Your task to perform on an android device: Add jbl charge 4 to the cart on newegg.com Image 0: 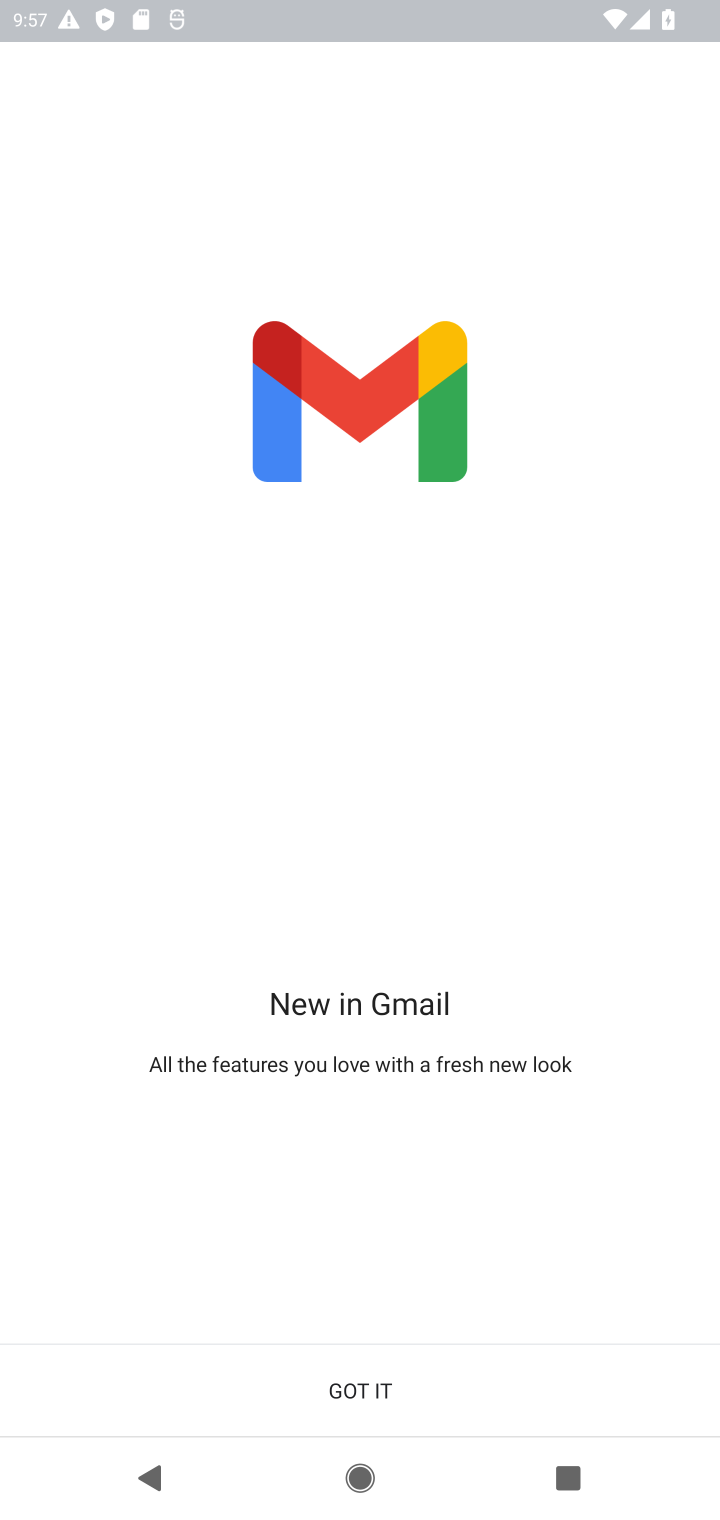
Step 0: press home button
Your task to perform on an android device: Add jbl charge 4 to the cart on newegg.com Image 1: 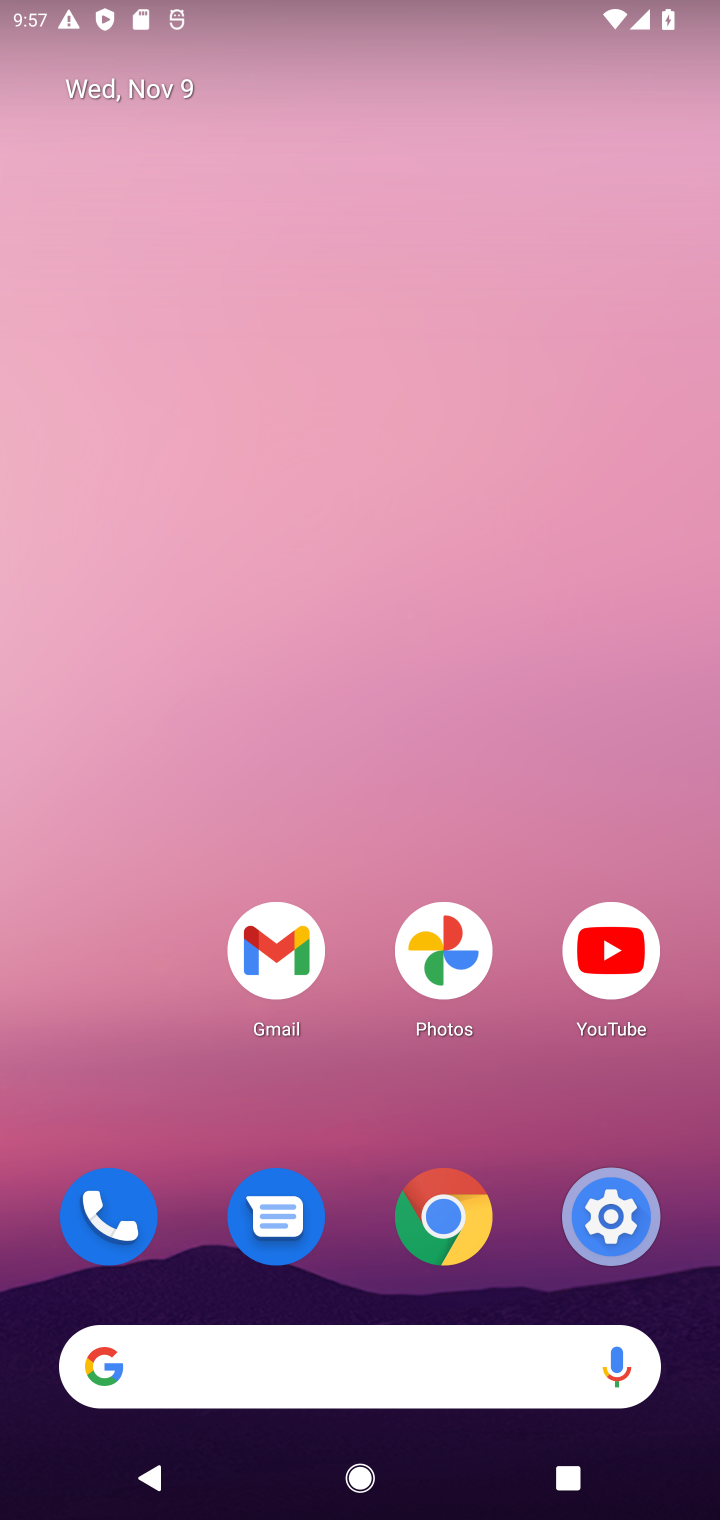
Step 1: drag from (318, 705) to (323, 279)
Your task to perform on an android device: Add jbl charge 4 to the cart on newegg.com Image 2: 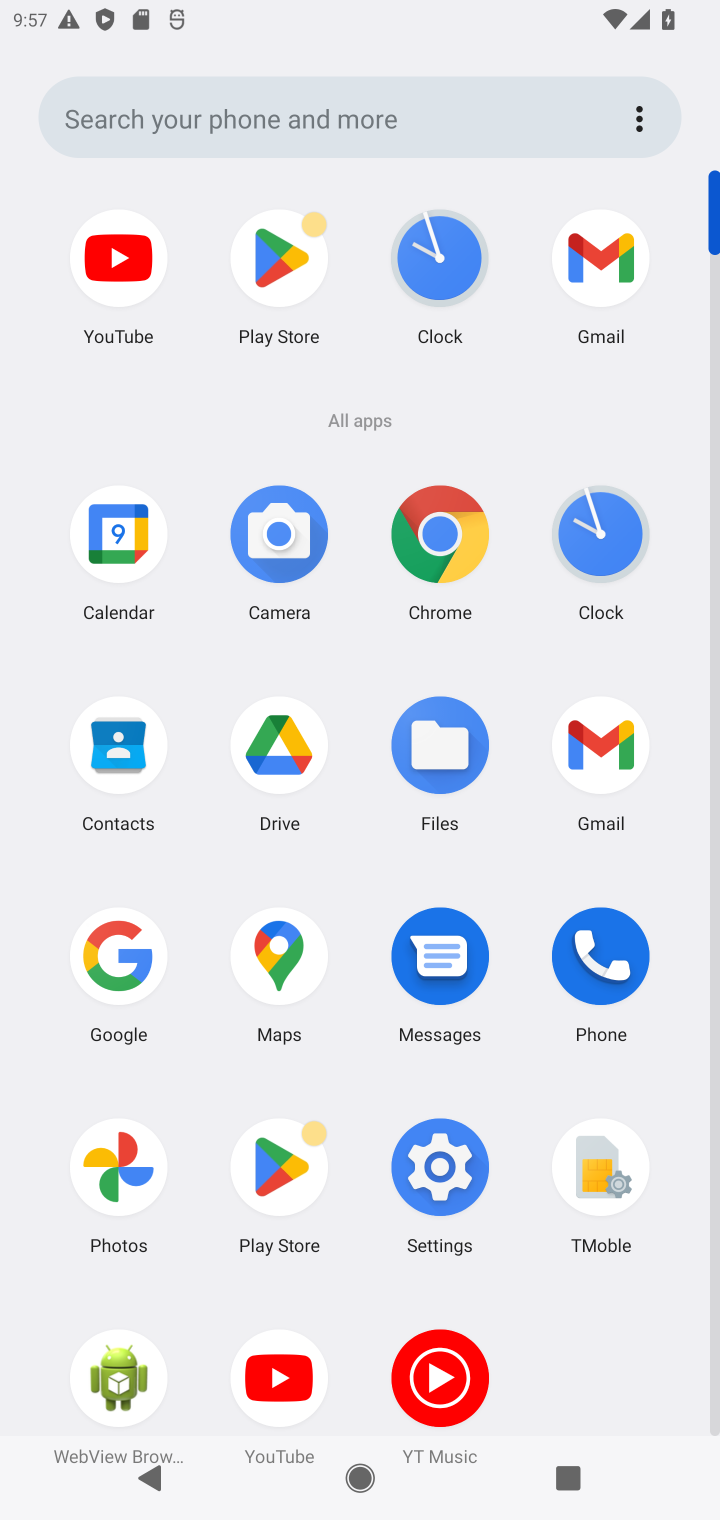
Step 2: click (438, 539)
Your task to perform on an android device: Add jbl charge 4 to the cart on newegg.com Image 3: 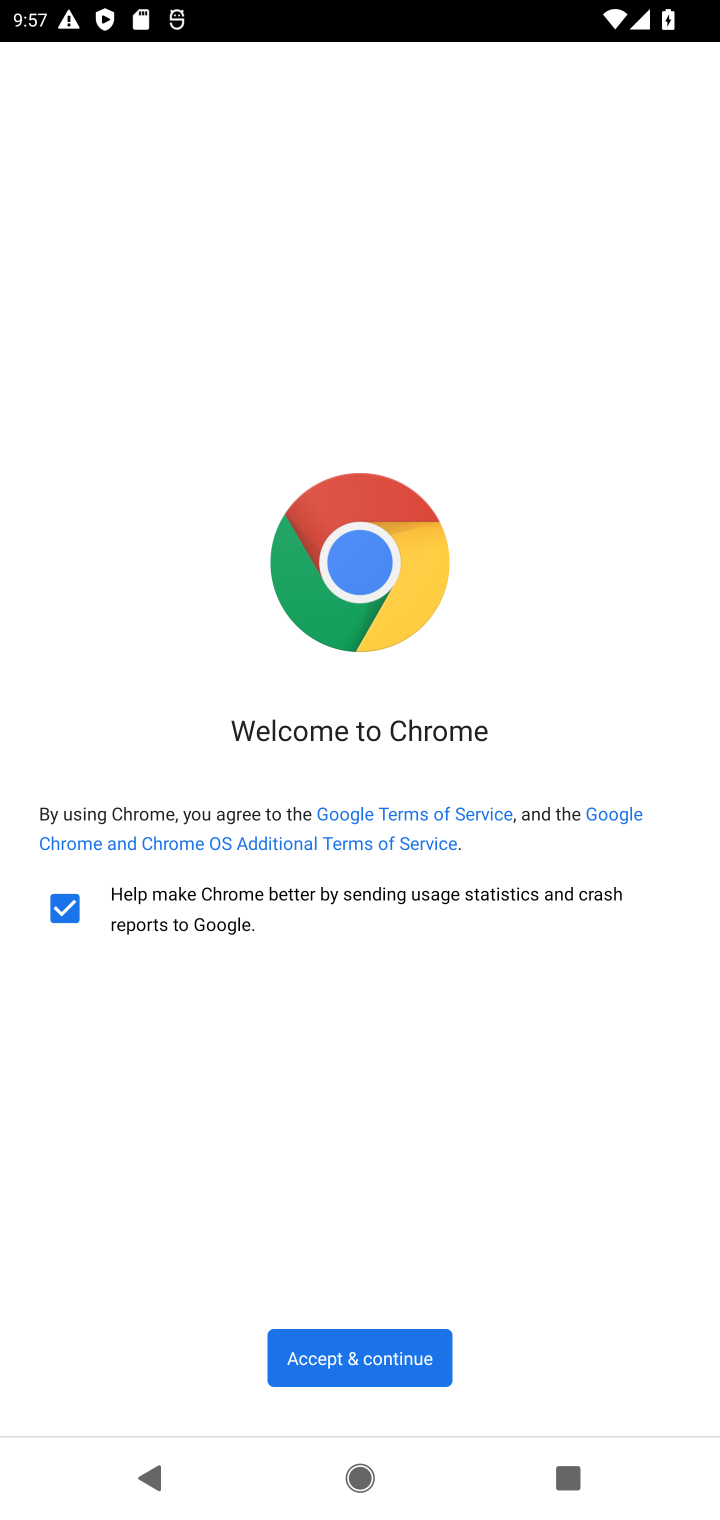
Step 3: click (410, 1342)
Your task to perform on an android device: Add jbl charge 4 to the cart on newegg.com Image 4: 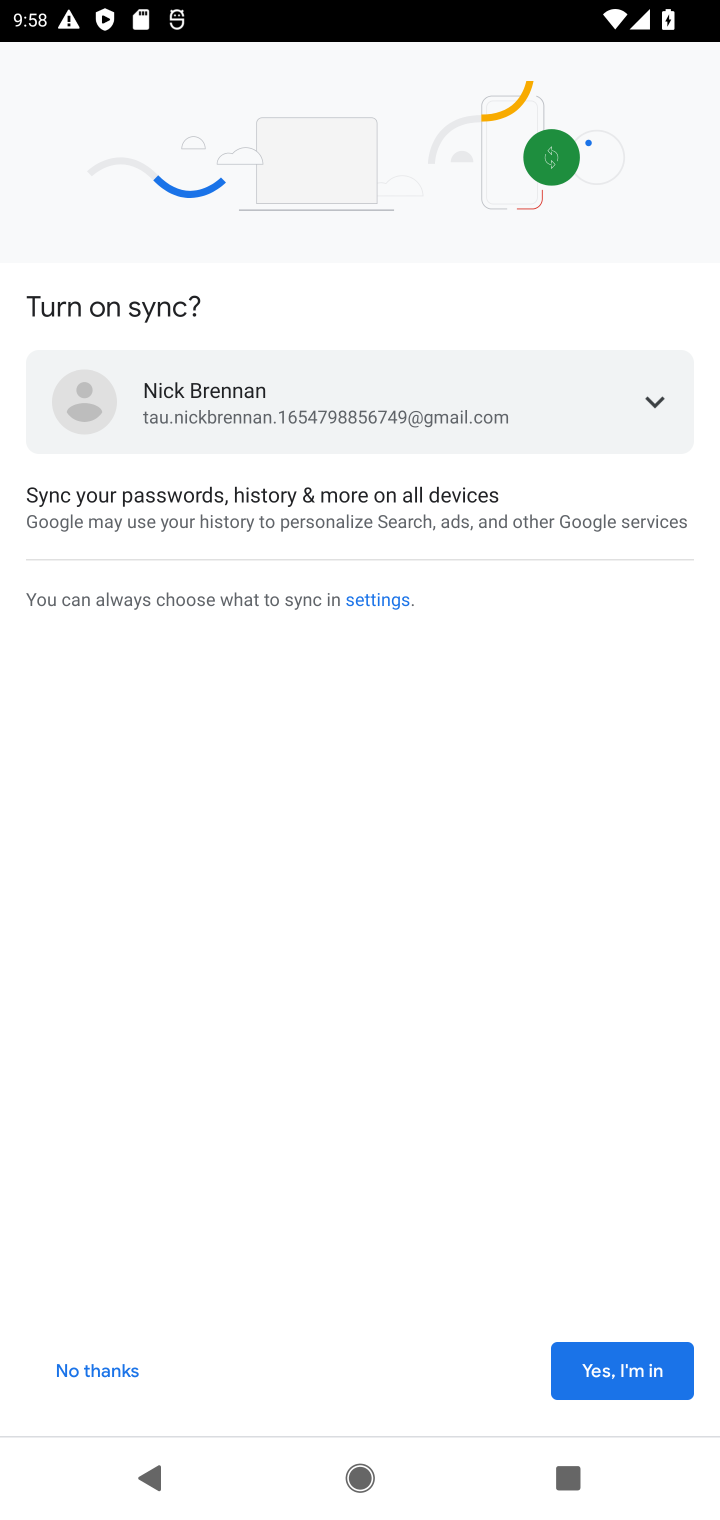
Step 4: click (603, 1381)
Your task to perform on an android device: Add jbl charge 4 to the cart on newegg.com Image 5: 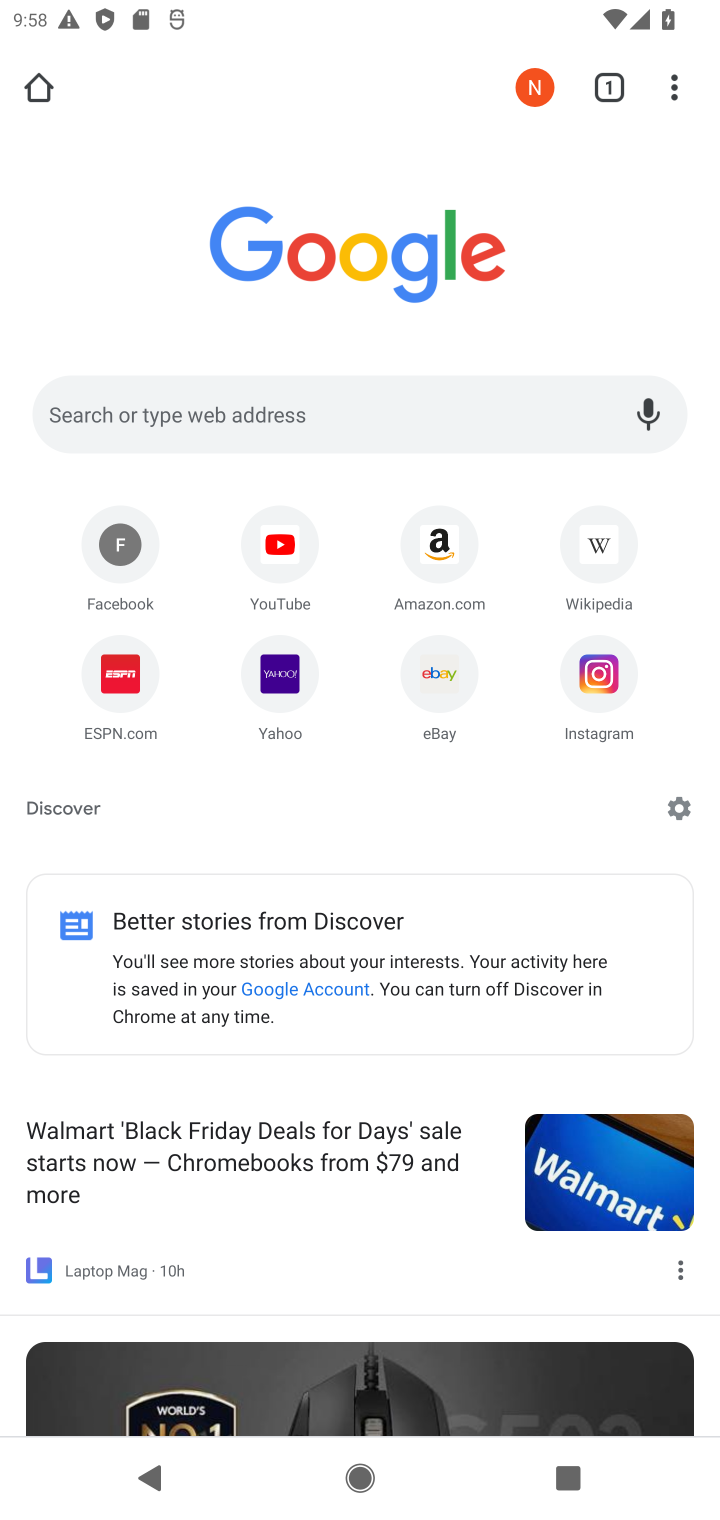
Step 5: click (324, 411)
Your task to perform on an android device: Add jbl charge 4 to the cart on newegg.com Image 6: 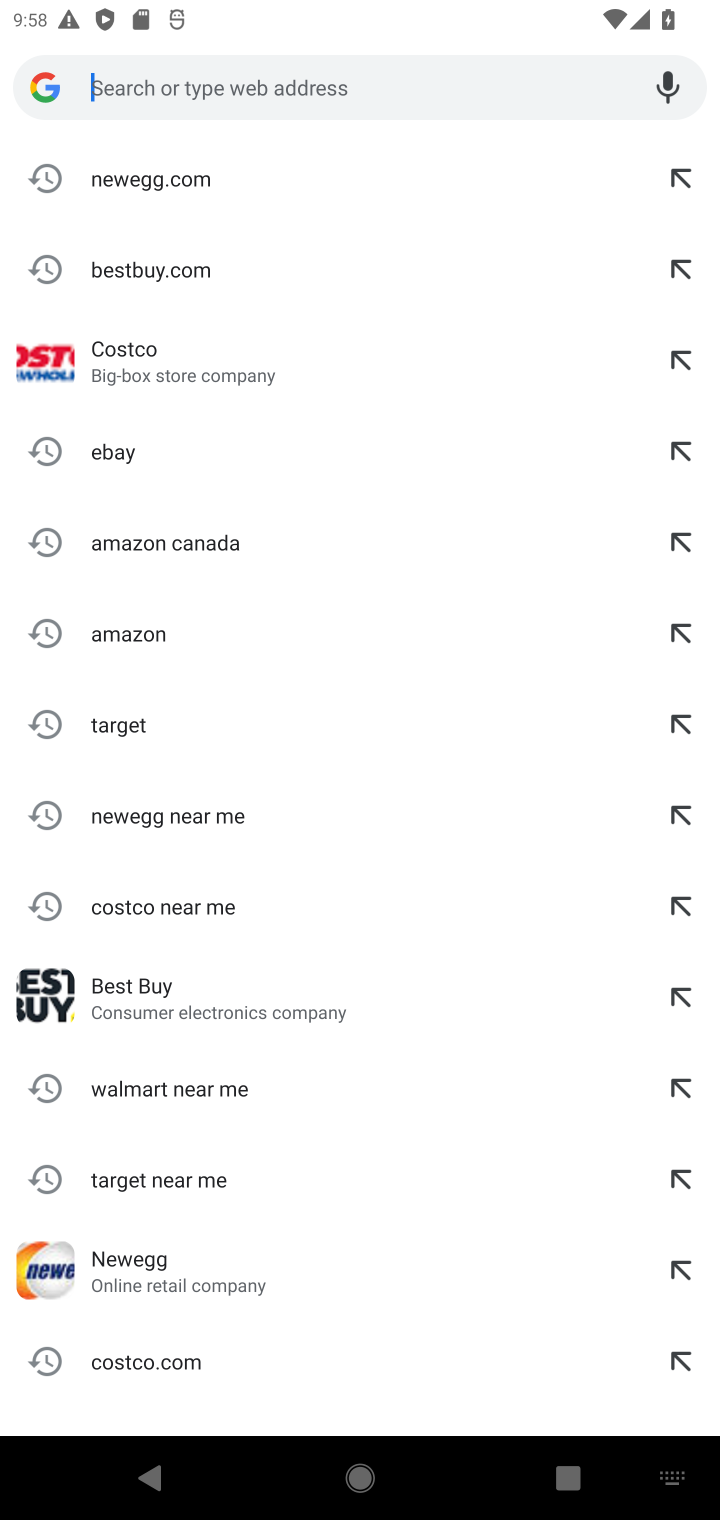
Step 6: type "newegg.com"
Your task to perform on an android device: Add jbl charge 4 to the cart on newegg.com Image 7: 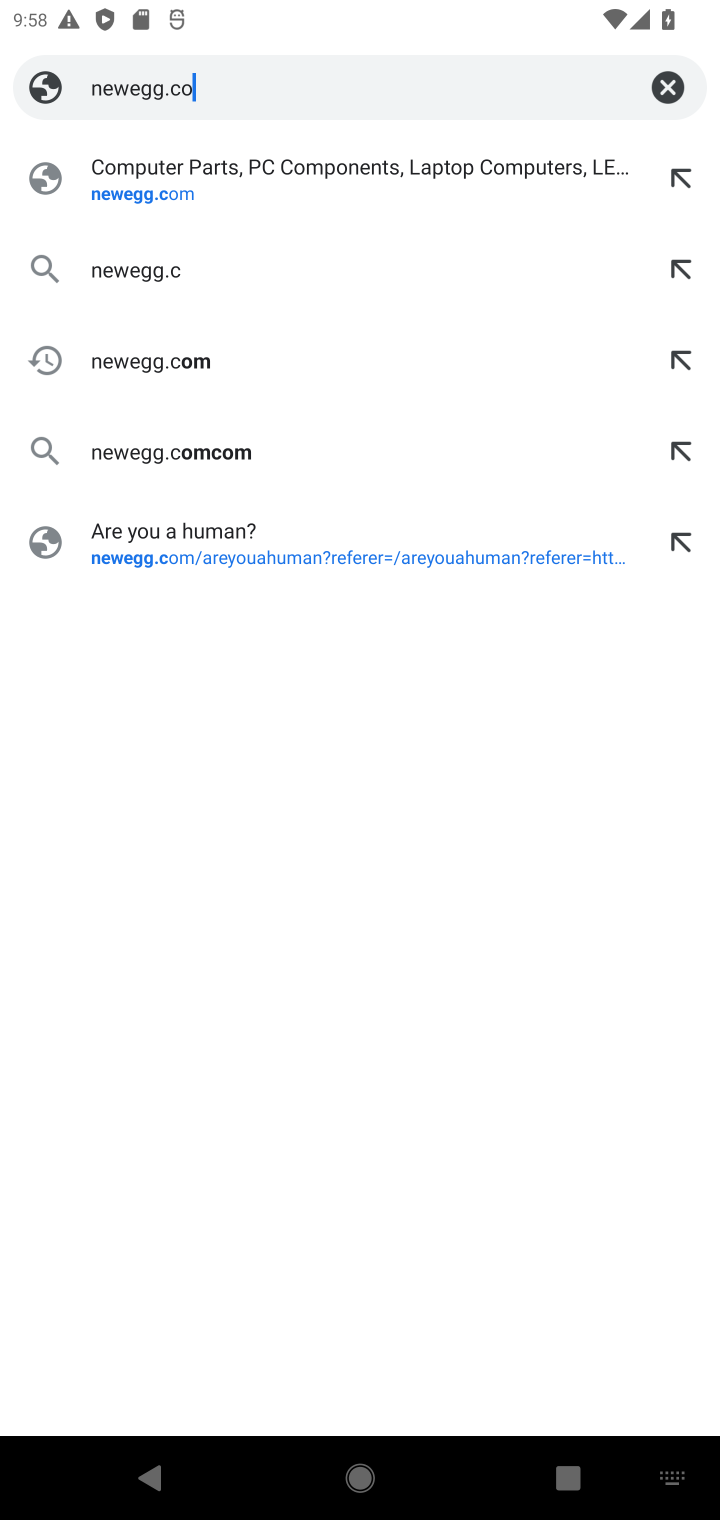
Step 7: press enter
Your task to perform on an android device: Add jbl charge 4 to the cart on newegg.com Image 8: 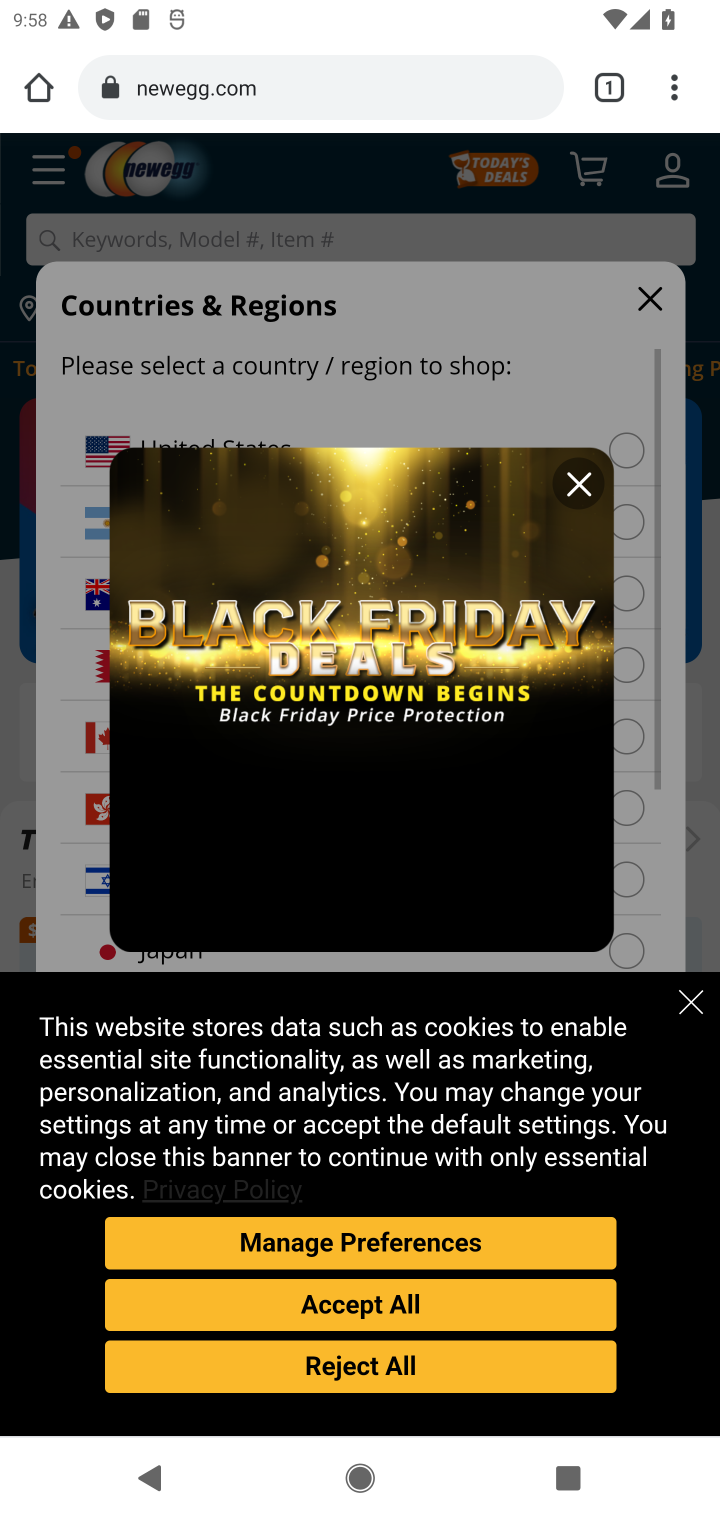
Step 8: click (652, 291)
Your task to perform on an android device: Add jbl charge 4 to the cart on newegg.com Image 9: 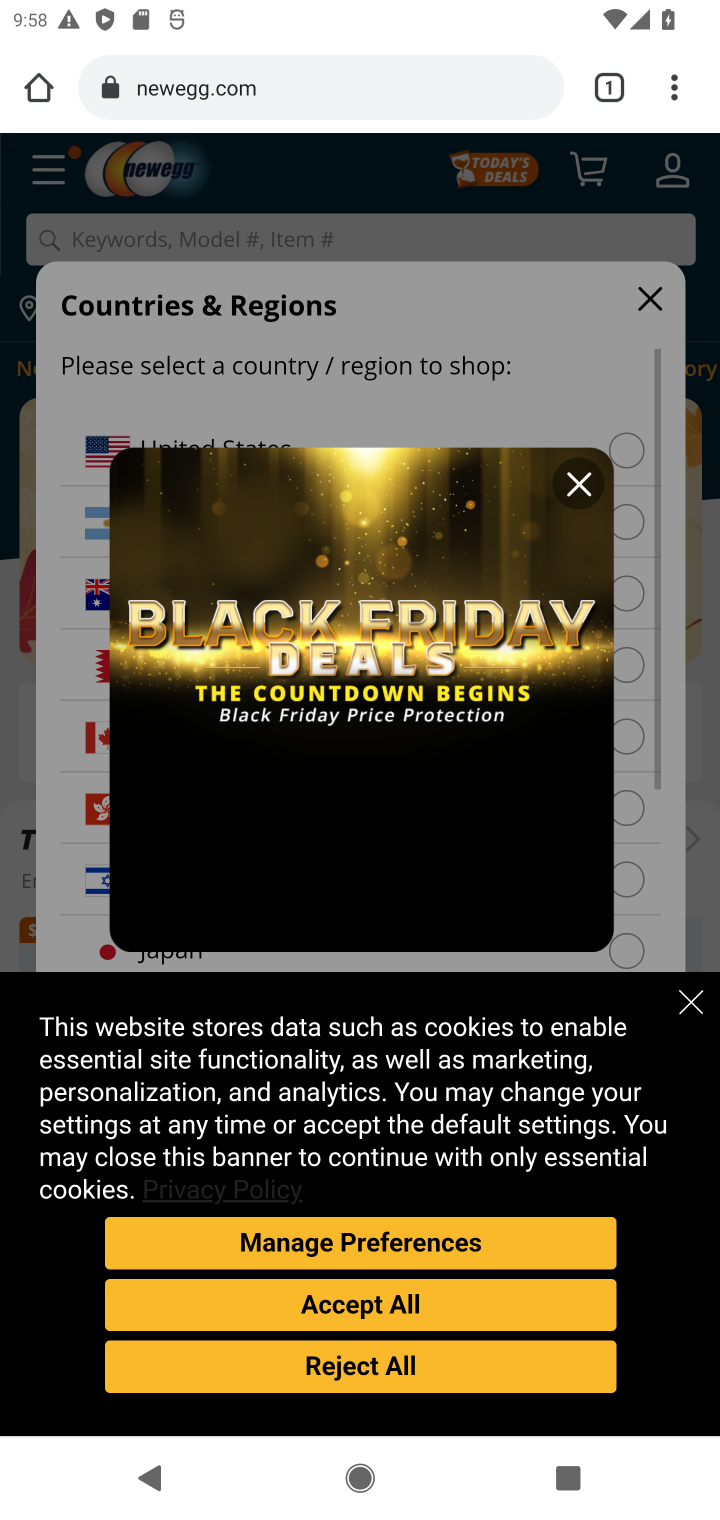
Step 9: click (647, 305)
Your task to perform on an android device: Add jbl charge 4 to the cart on newegg.com Image 10: 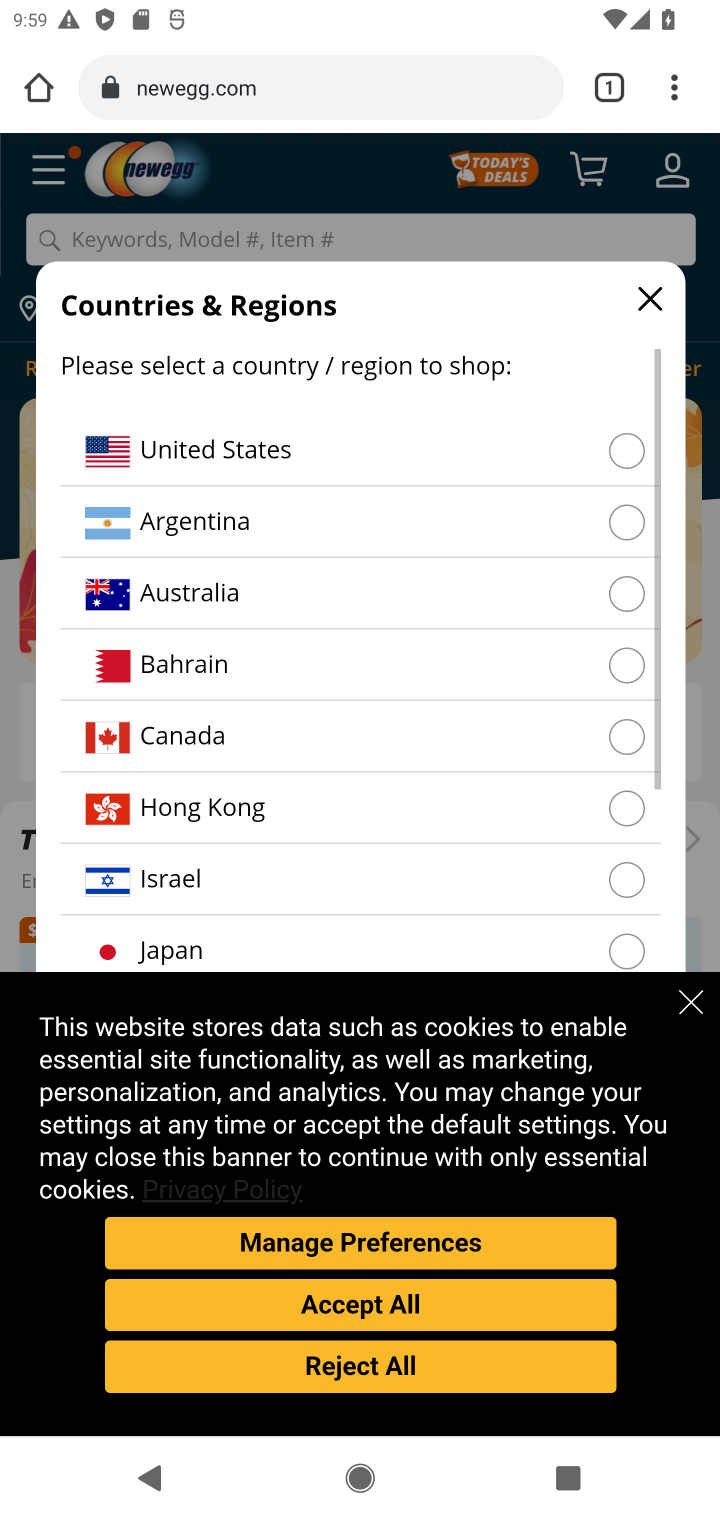
Step 10: click (654, 294)
Your task to perform on an android device: Add jbl charge 4 to the cart on newegg.com Image 11: 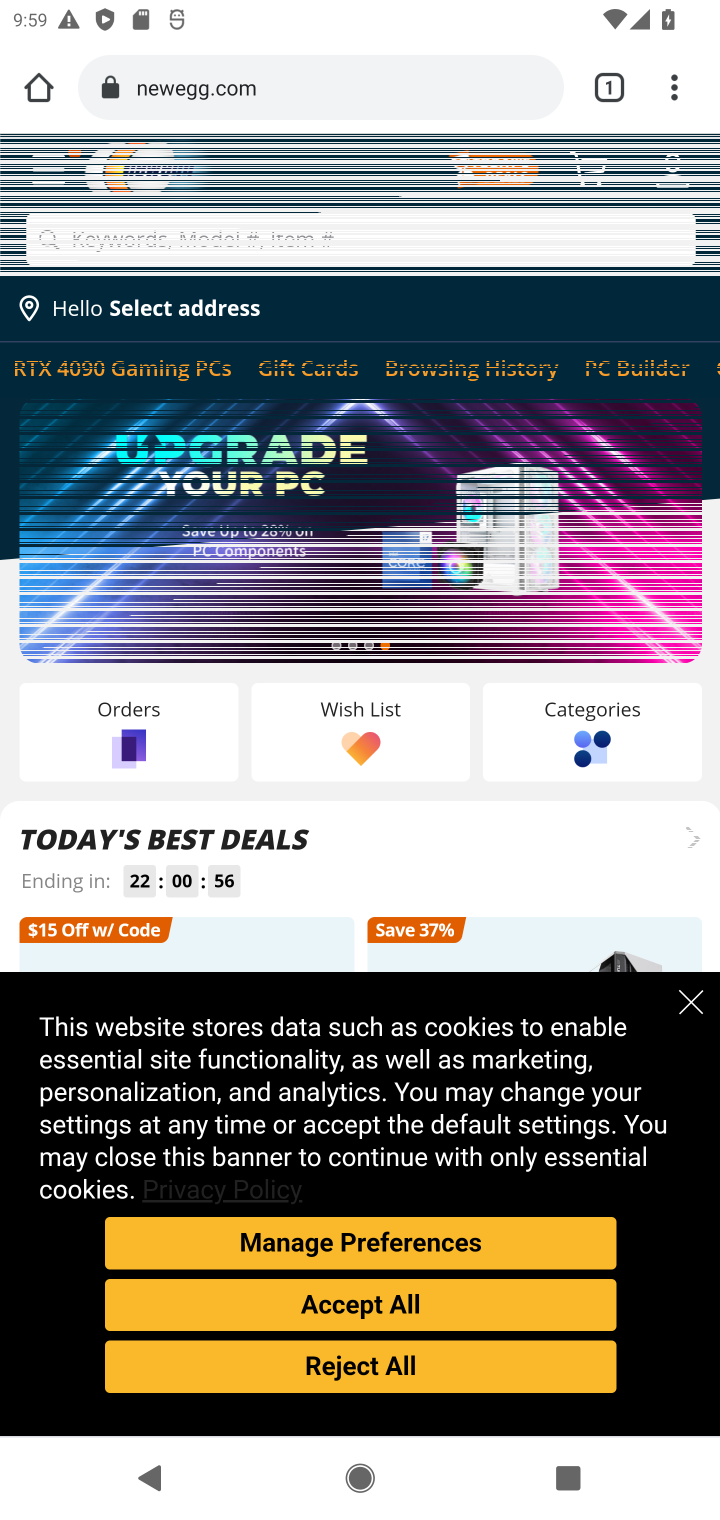
Step 11: click (265, 234)
Your task to perform on an android device: Add jbl charge 4 to the cart on newegg.com Image 12: 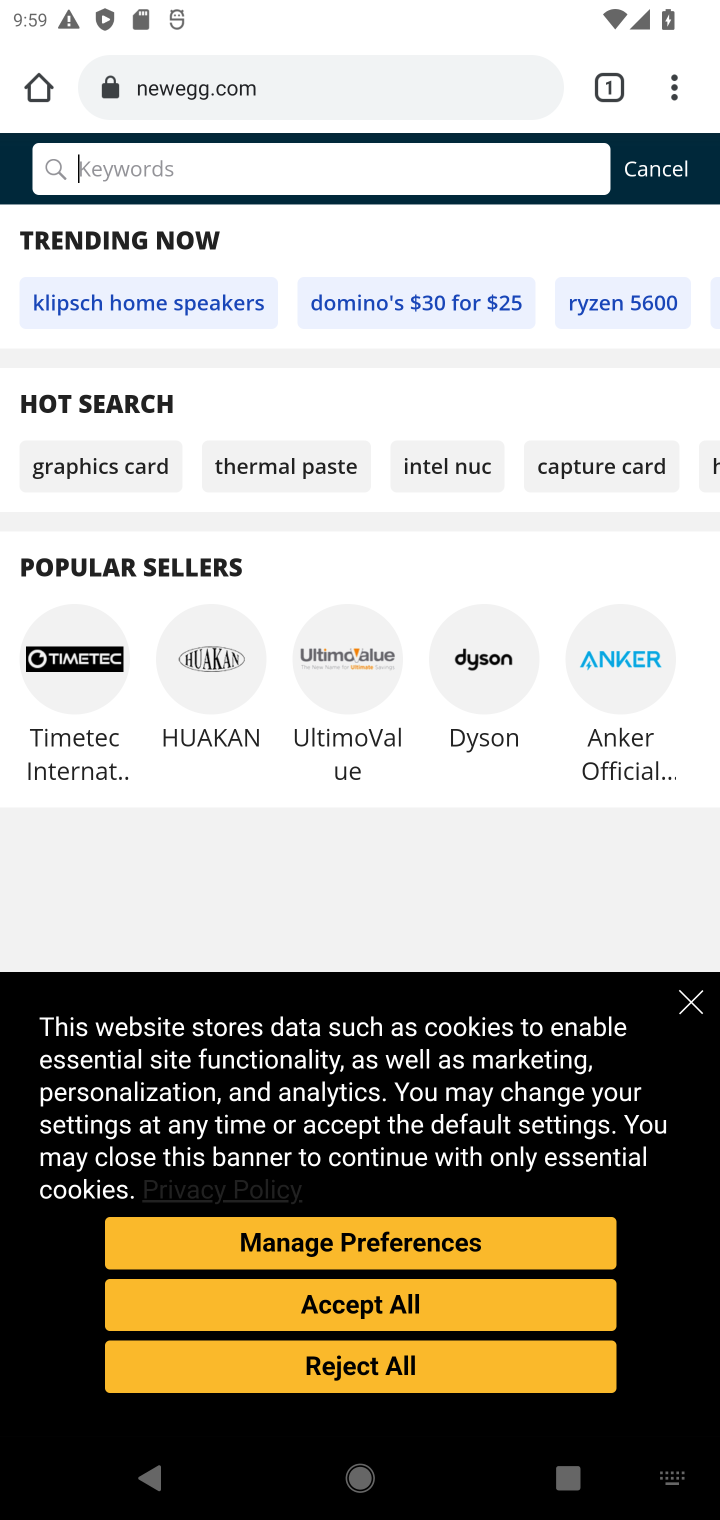
Step 12: type "jbl charge 4"
Your task to perform on an android device: Add jbl charge 4 to the cart on newegg.com Image 13: 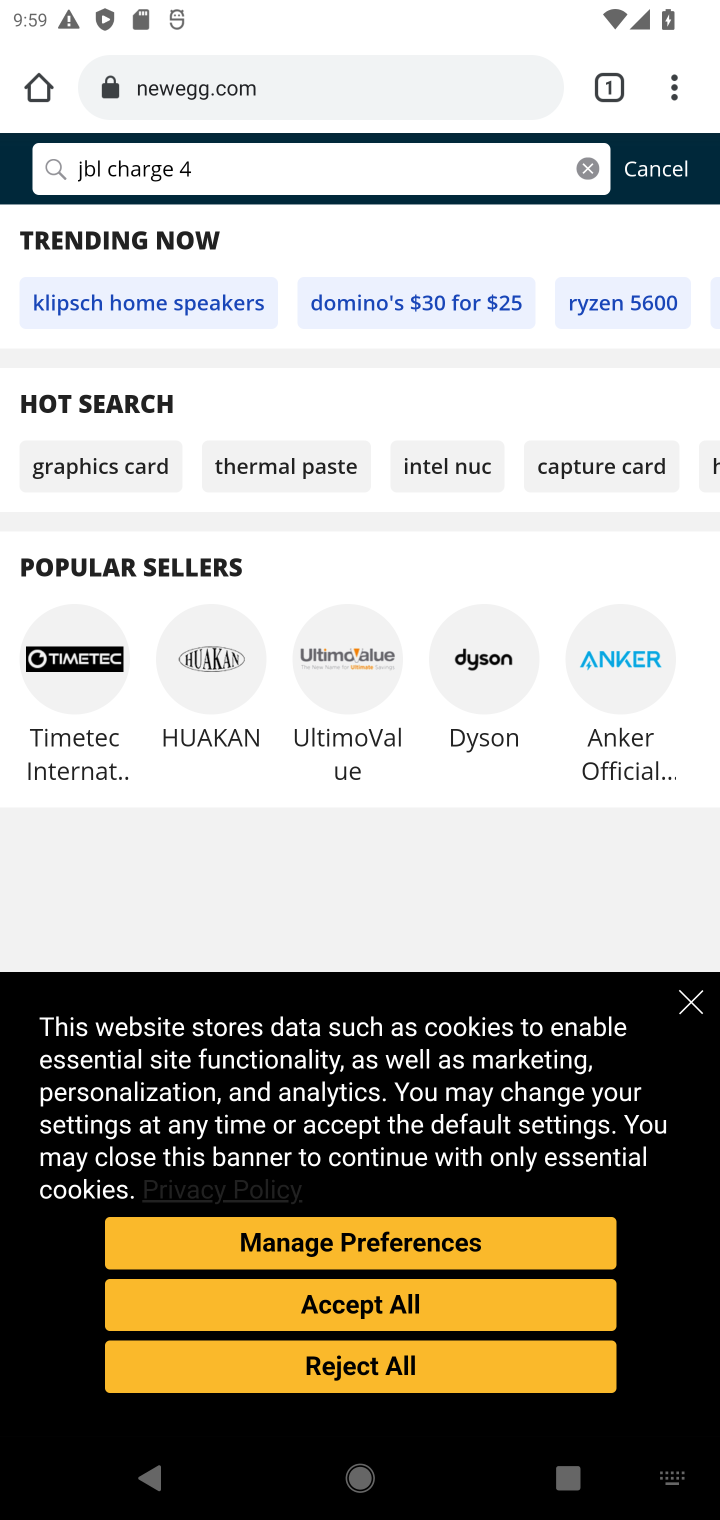
Step 13: press enter
Your task to perform on an android device: Add jbl charge 4 to the cart on newegg.com Image 14: 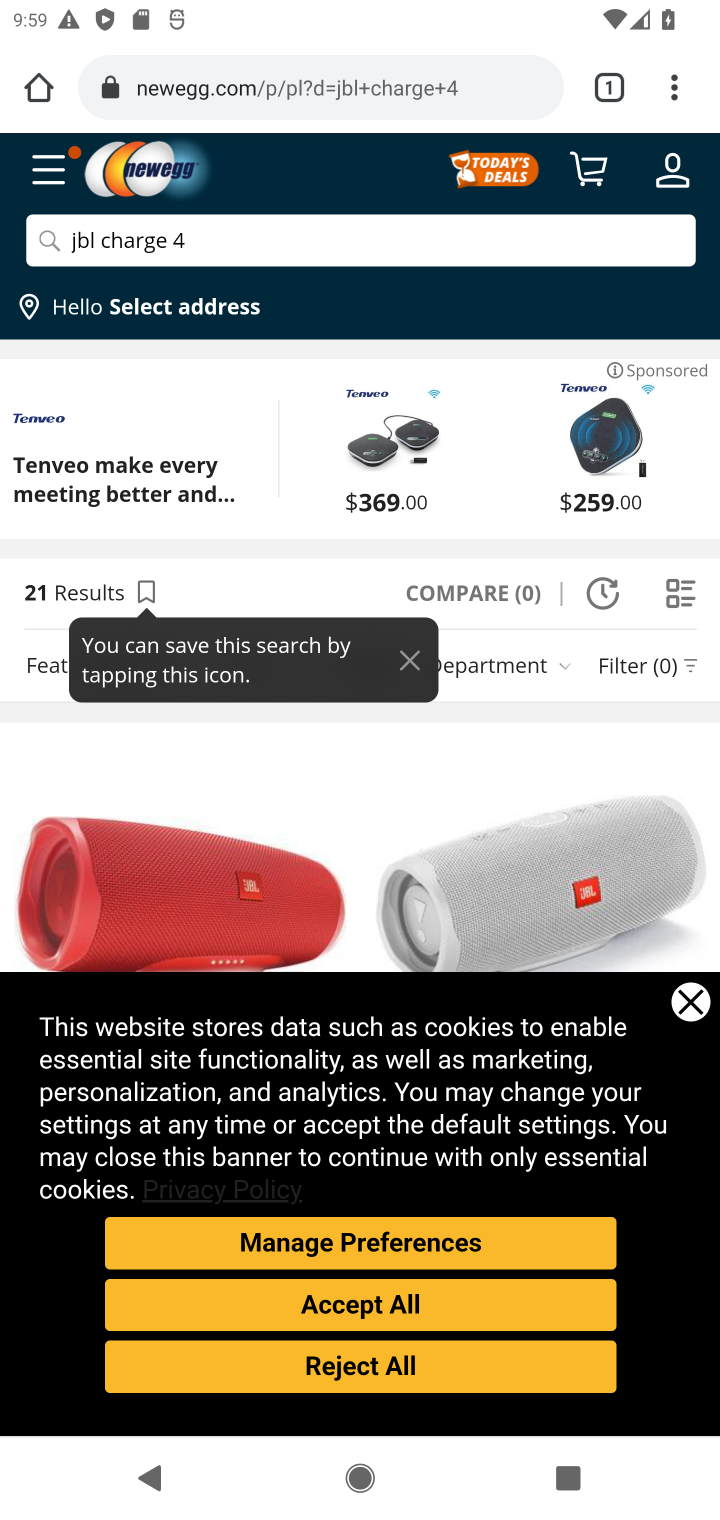
Step 14: drag from (520, 838) to (504, 287)
Your task to perform on an android device: Add jbl charge 4 to the cart on newegg.com Image 15: 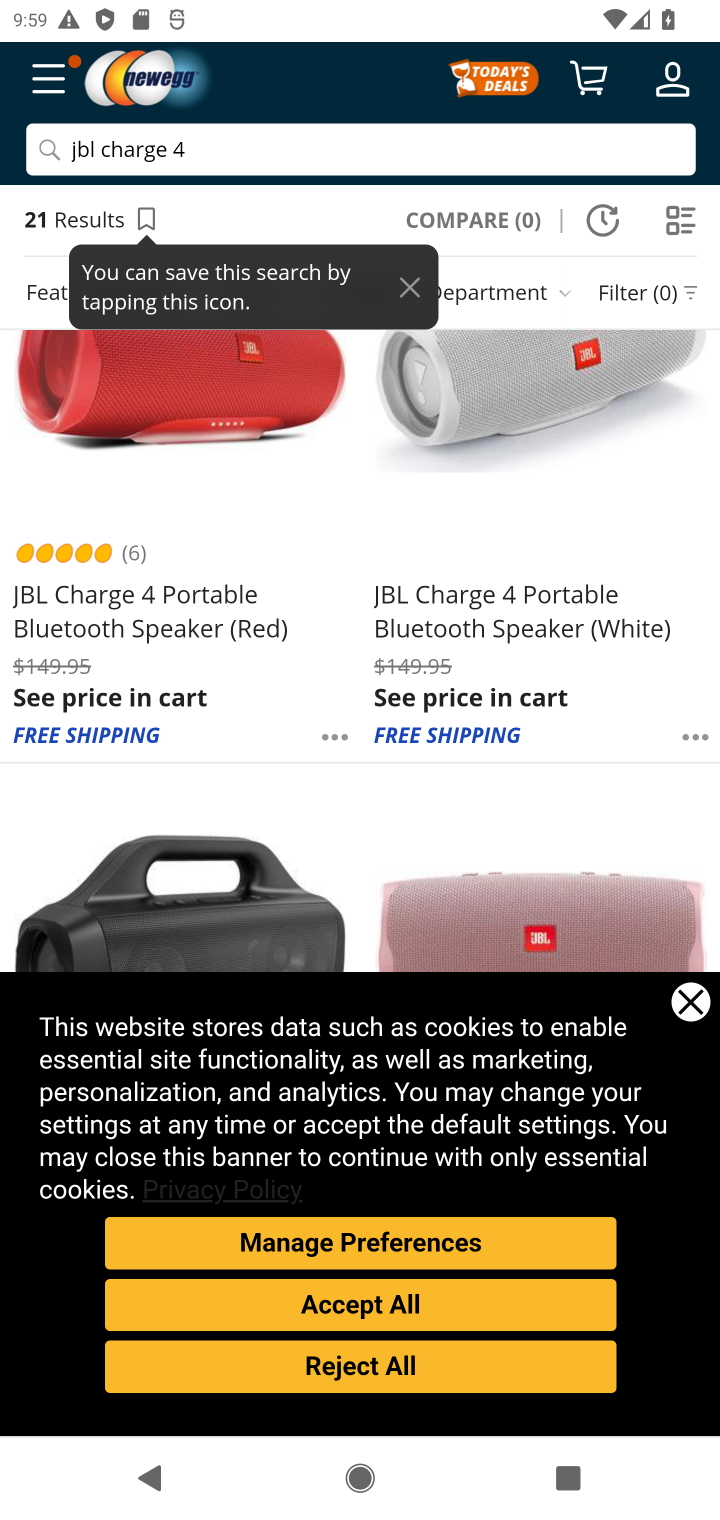
Step 15: drag from (456, 465) to (478, 617)
Your task to perform on an android device: Add jbl charge 4 to the cart on newegg.com Image 16: 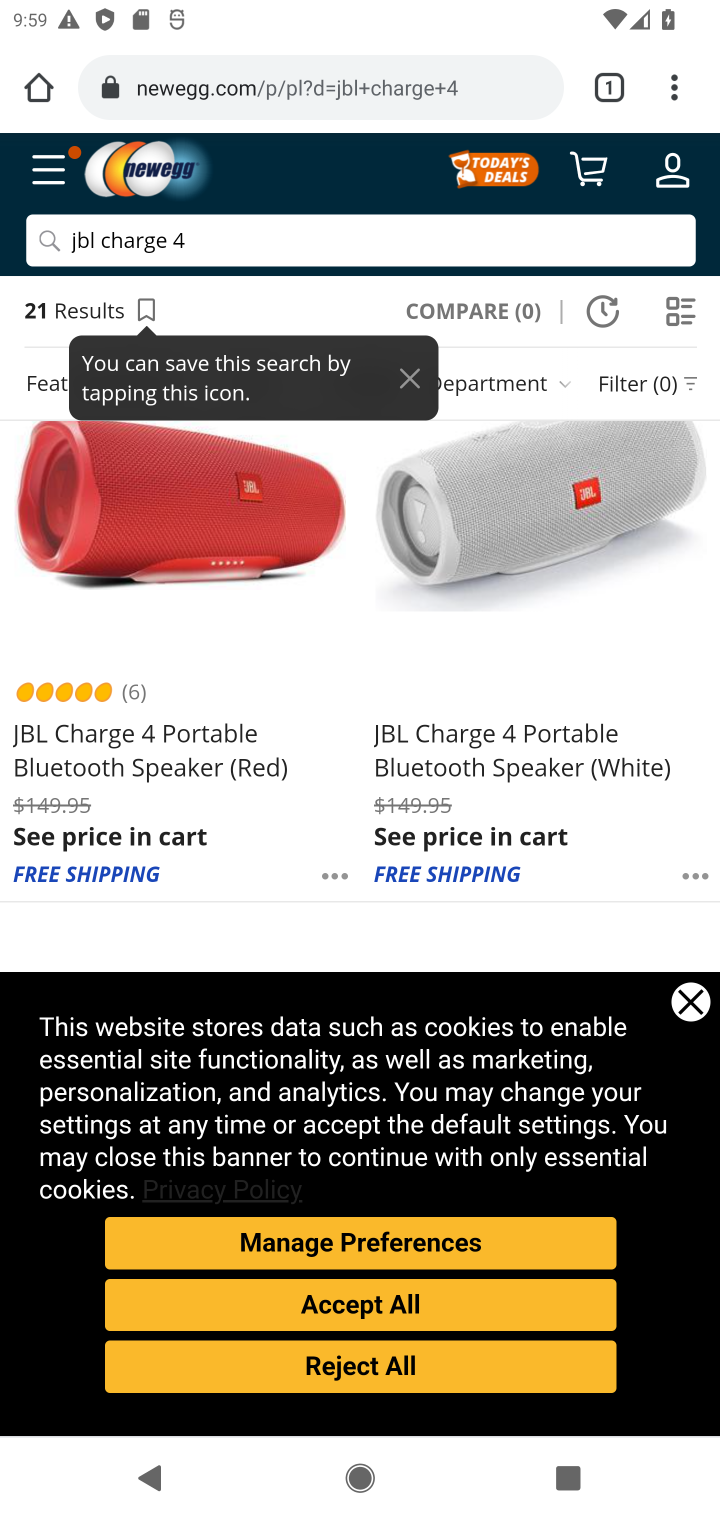
Step 16: click (351, 1311)
Your task to perform on an android device: Add jbl charge 4 to the cart on newegg.com Image 17: 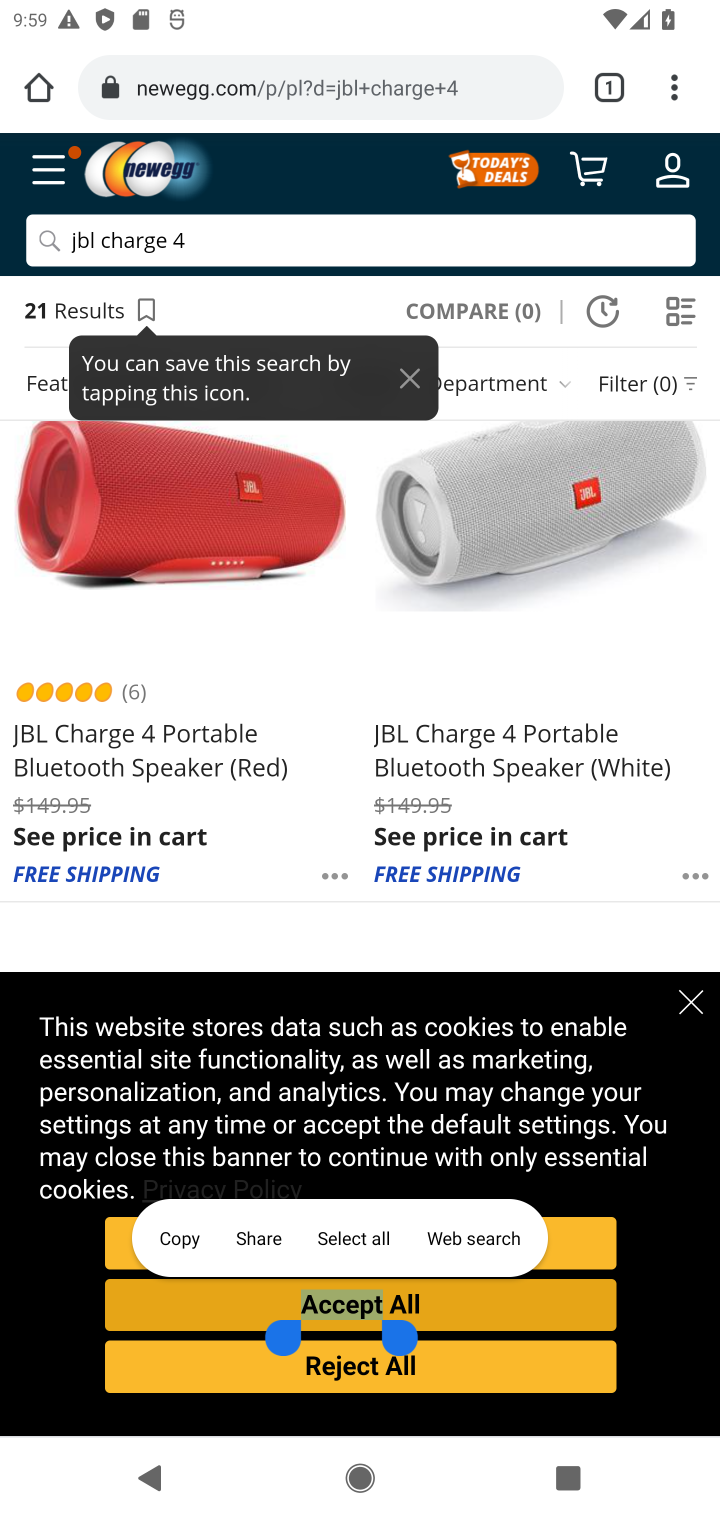
Step 17: click (449, 1321)
Your task to perform on an android device: Add jbl charge 4 to the cart on newegg.com Image 18: 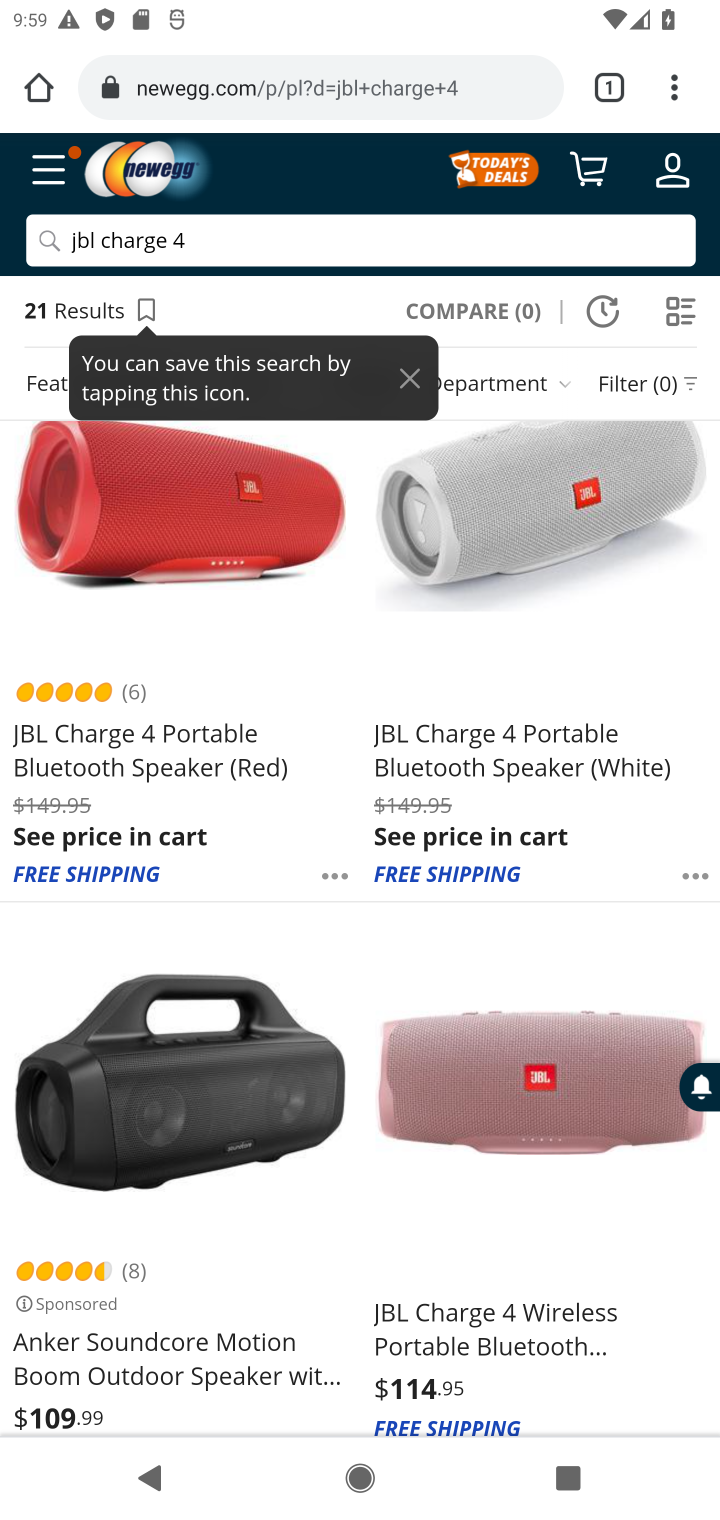
Step 18: click (194, 737)
Your task to perform on an android device: Add jbl charge 4 to the cart on newegg.com Image 19: 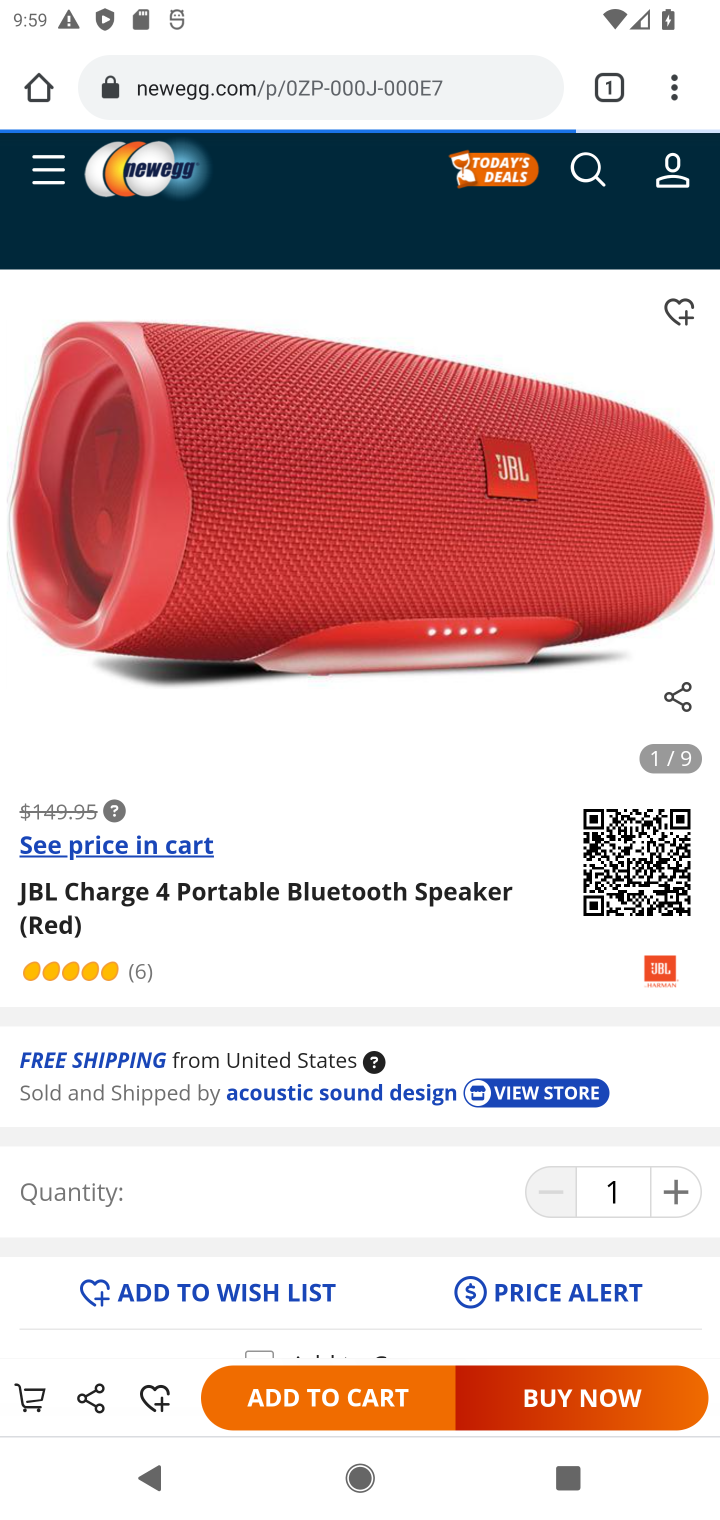
Step 19: click (130, 735)
Your task to perform on an android device: Add jbl charge 4 to the cart on newegg.com Image 20: 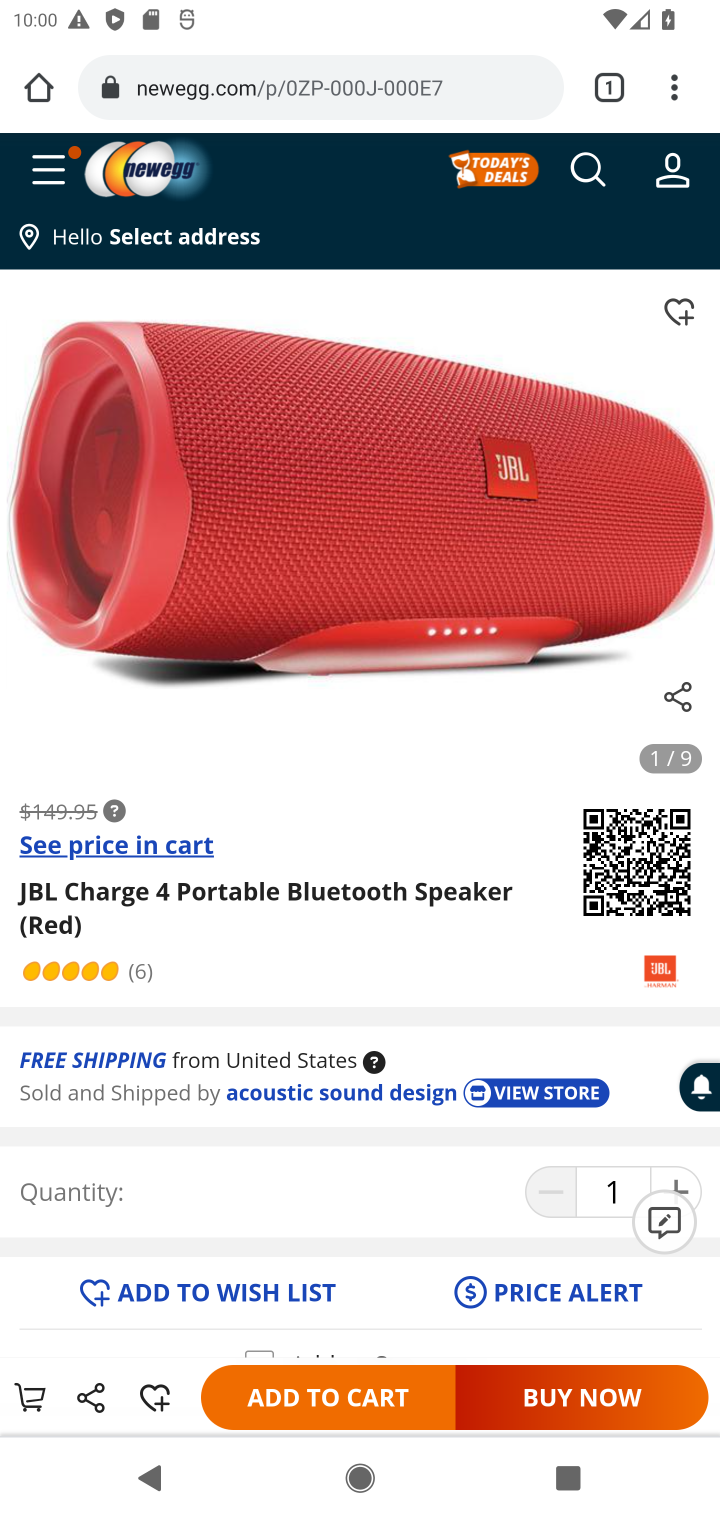
Step 20: click (338, 1388)
Your task to perform on an android device: Add jbl charge 4 to the cart on newegg.com Image 21: 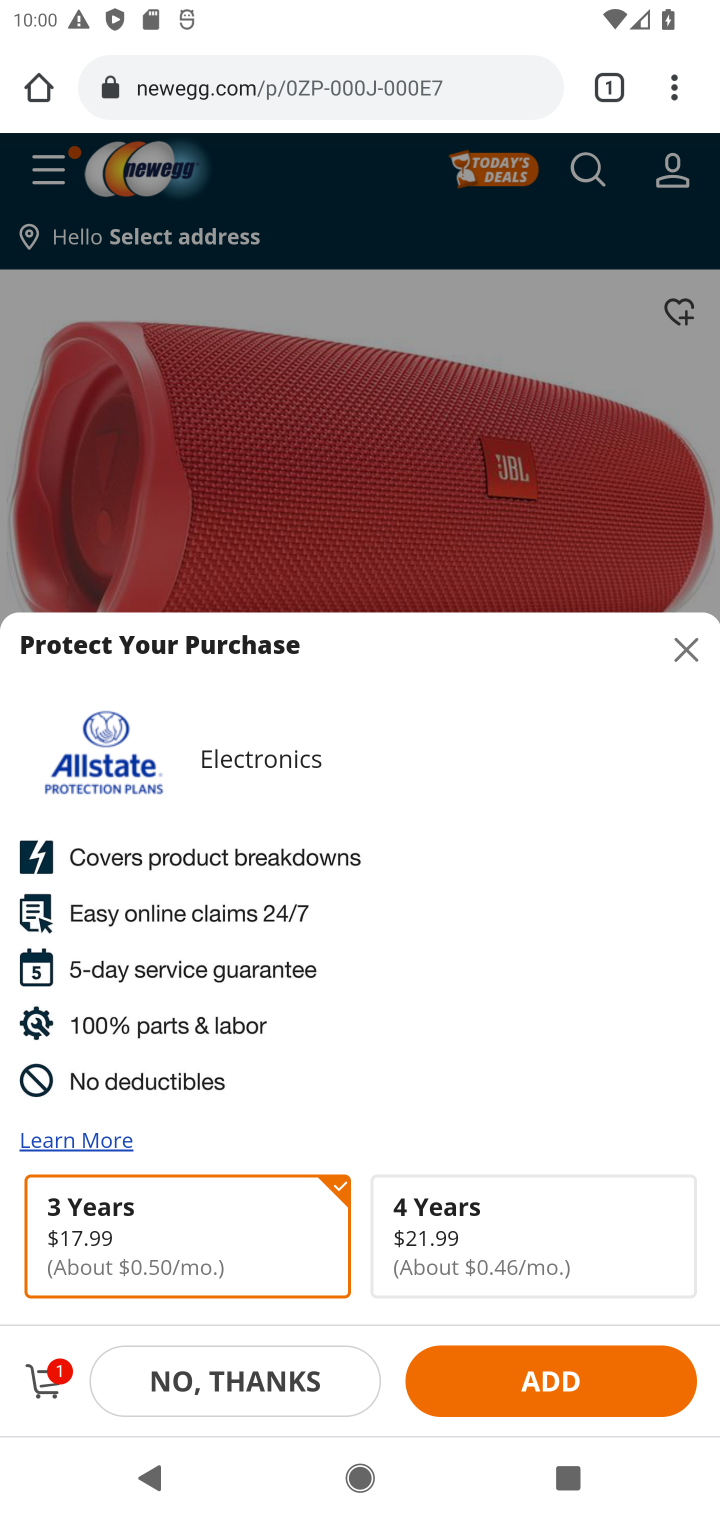
Step 21: task complete